Your task to perform on an android device: Show me popular games on the Play Store Image 0: 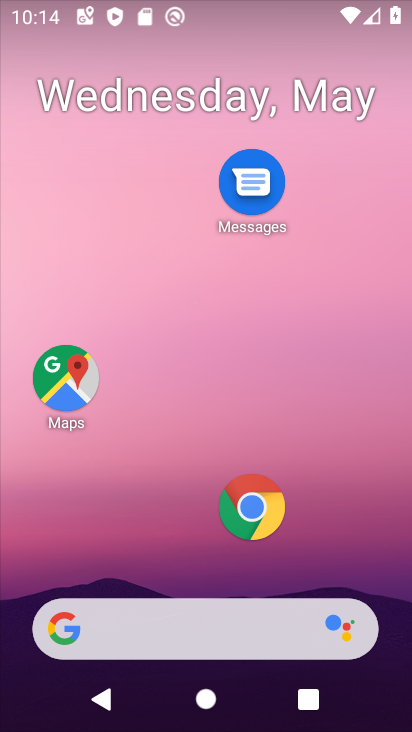
Step 0: drag from (176, 590) to (228, 8)
Your task to perform on an android device: Show me popular games on the Play Store Image 1: 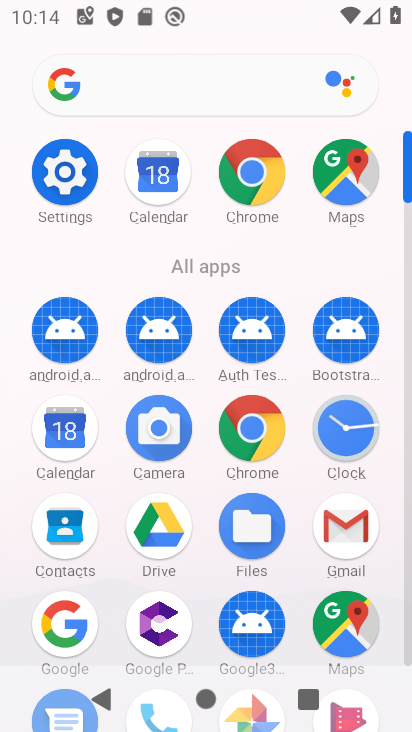
Step 1: drag from (202, 633) to (233, 109)
Your task to perform on an android device: Show me popular games on the Play Store Image 2: 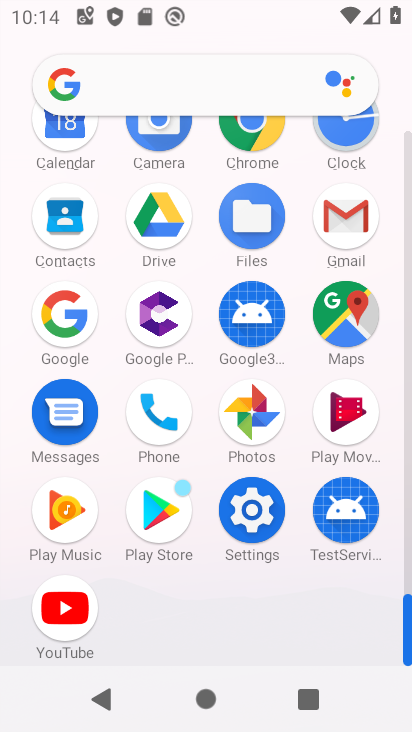
Step 2: click (151, 501)
Your task to perform on an android device: Show me popular games on the Play Store Image 3: 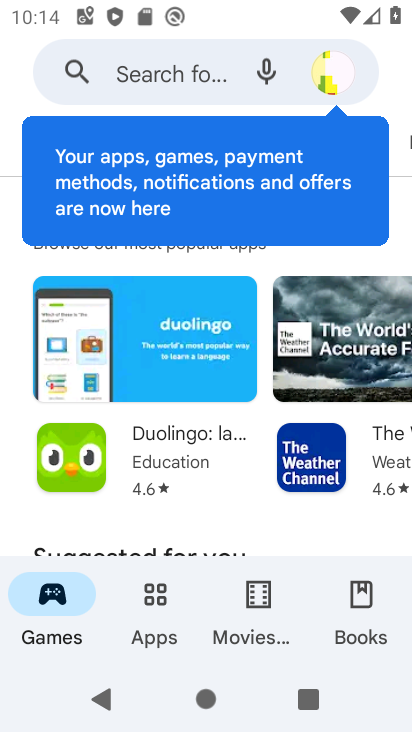
Step 3: drag from (200, 513) to (231, 308)
Your task to perform on an android device: Show me popular games on the Play Store Image 4: 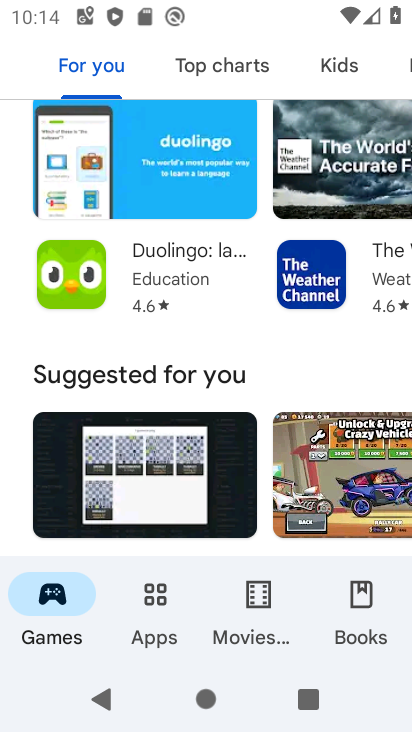
Step 4: drag from (265, 519) to (279, 241)
Your task to perform on an android device: Show me popular games on the Play Store Image 5: 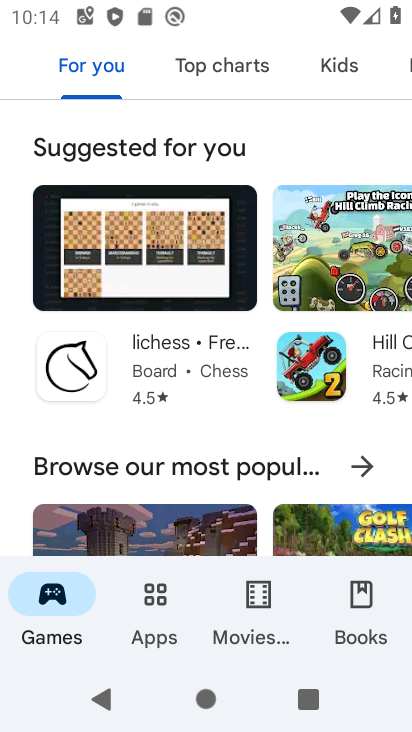
Step 5: click (357, 467)
Your task to perform on an android device: Show me popular games on the Play Store Image 6: 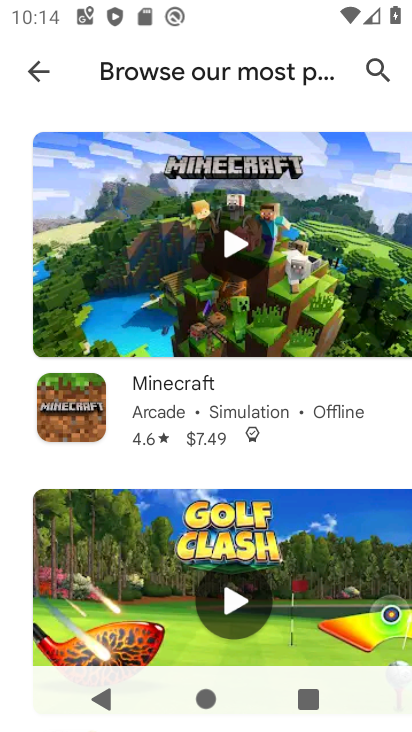
Step 6: task complete